Your task to perform on an android device: Open settings on Google Maps Image 0: 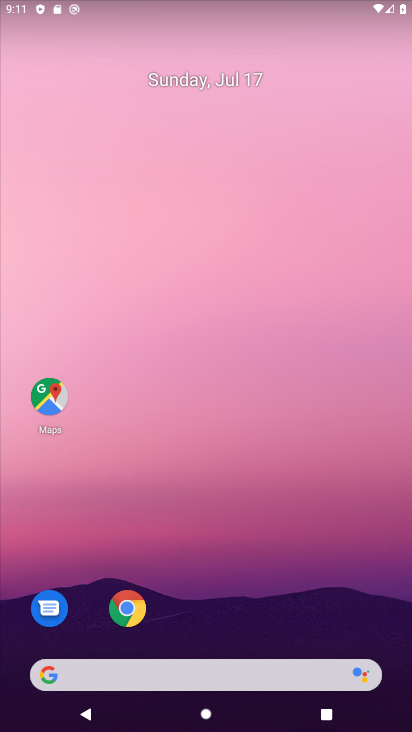
Step 0: drag from (219, 645) to (297, 71)
Your task to perform on an android device: Open settings on Google Maps Image 1: 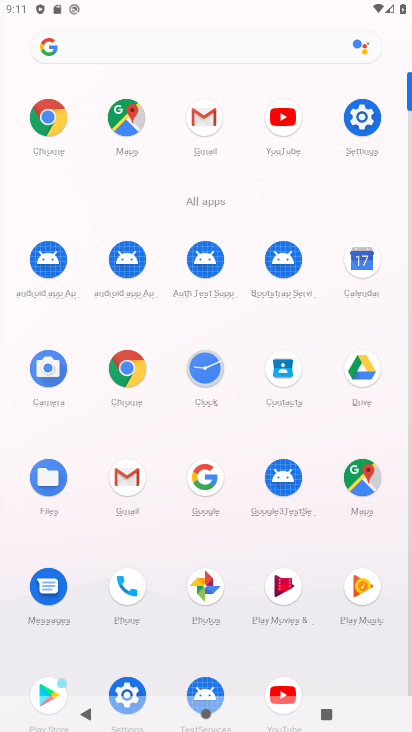
Step 1: click (129, 112)
Your task to perform on an android device: Open settings on Google Maps Image 2: 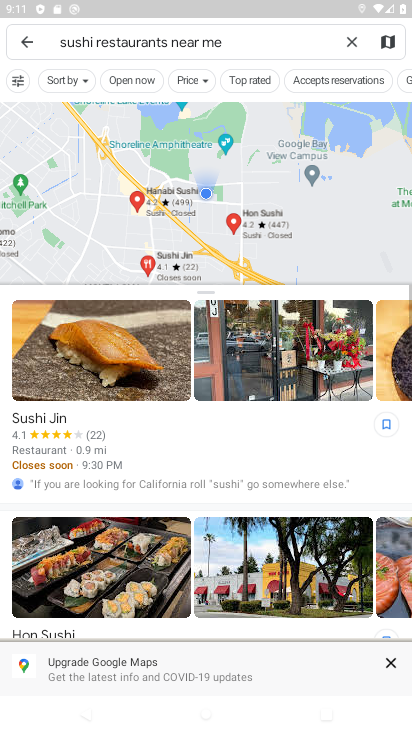
Step 2: click (24, 37)
Your task to perform on an android device: Open settings on Google Maps Image 3: 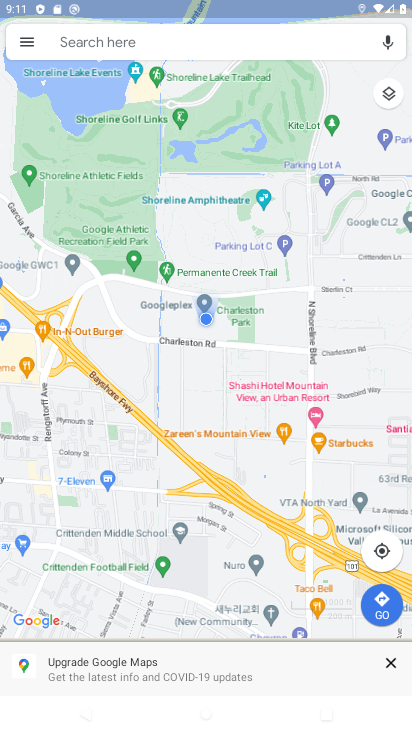
Step 3: click (27, 43)
Your task to perform on an android device: Open settings on Google Maps Image 4: 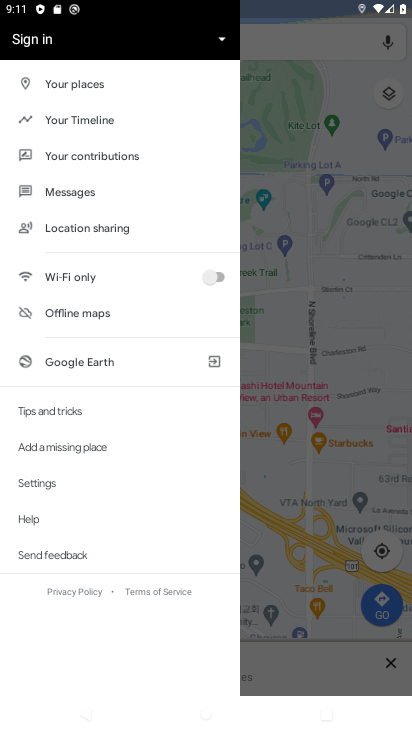
Step 4: click (85, 475)
Your task to perform on an android device: Open settings on Google Maps Image 5: 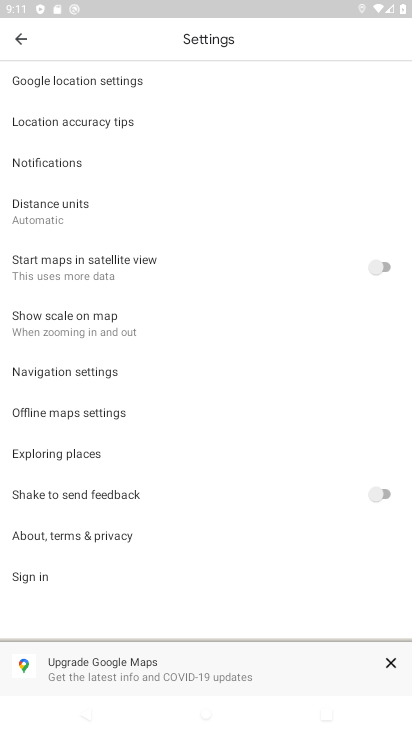
Step 5: click (390, 664)
Your task to perform on an android device: Open settings on Google Maps Image 6: 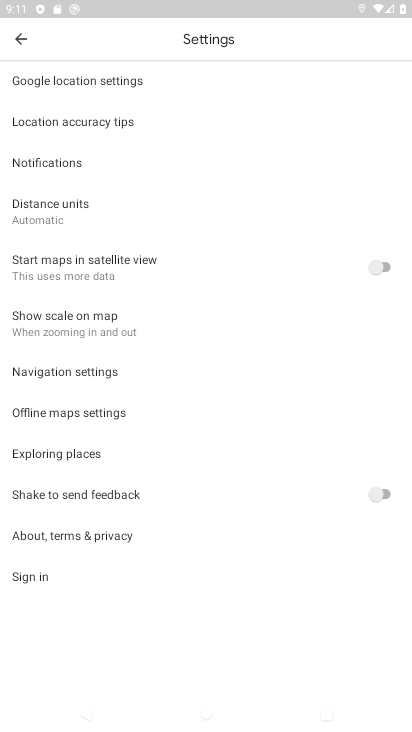
Step 6: task complete